Your task to perform on an android device: Open location settings Image 0: 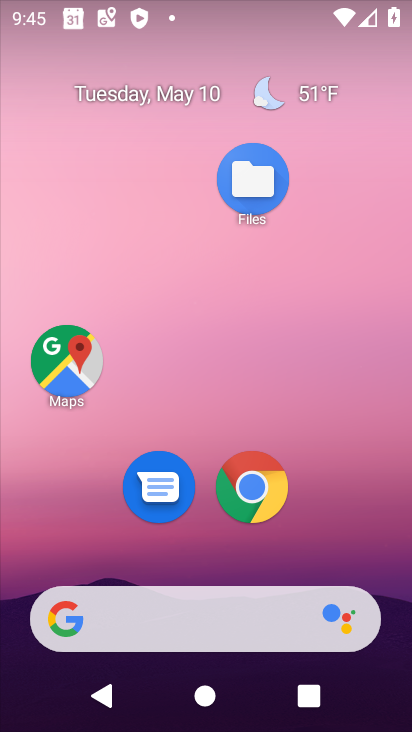
Step 0: drag from (211, 563) to (238, 97)
Your task to perform on an android device: Open location settings Image 1: 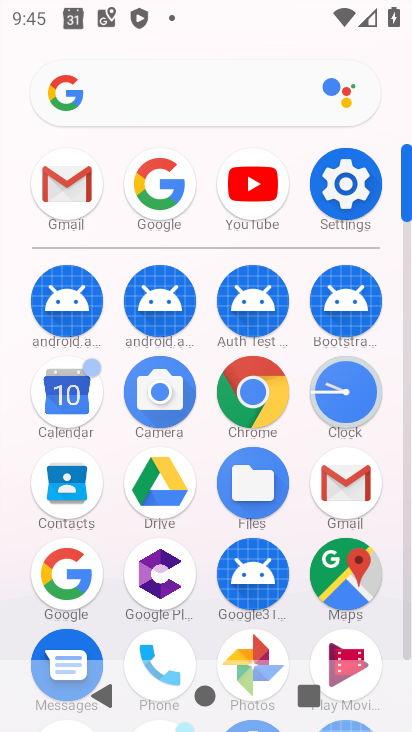
Step 1: click (352, 180)
Your task to perform on an android device: Open location settings Image 2: 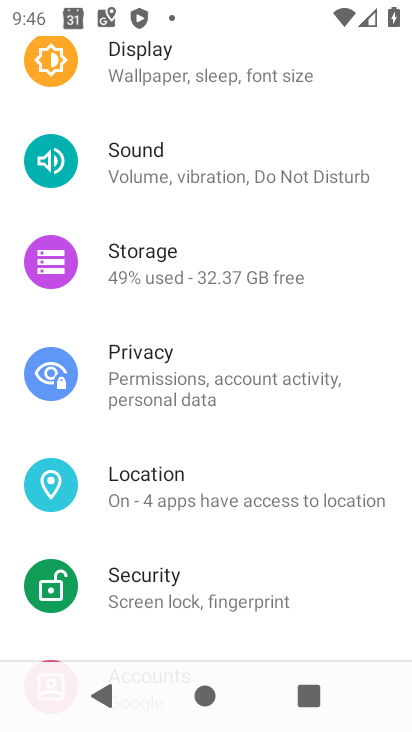
Step 2: click (169, 485)
Your task to perform on an android device: Open location settings Image 3: 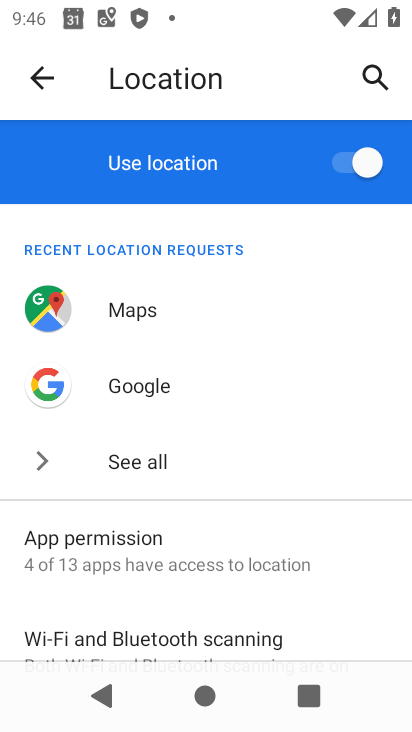
Step 3: task complete